Your task to perform on an android device: turn on sleep mode Image 0: 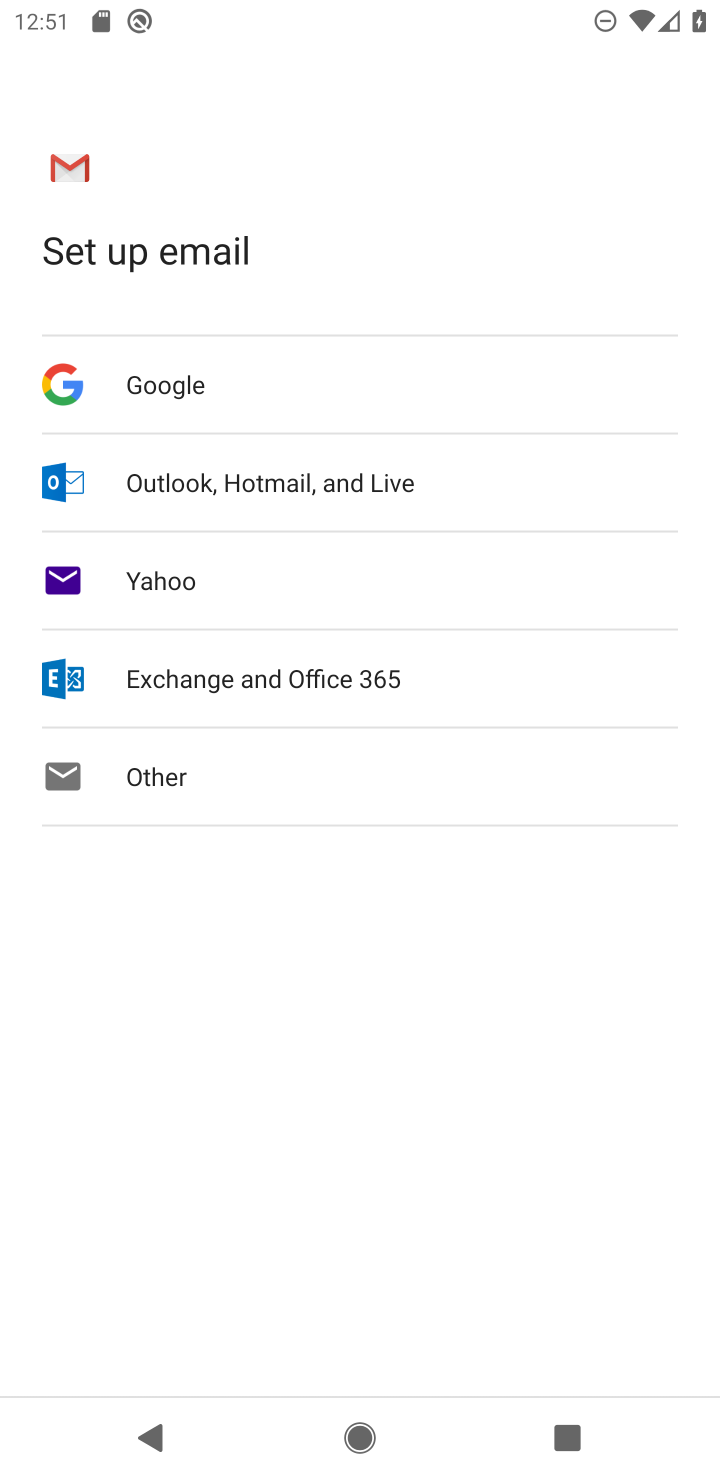
Step 0: press home button
Your task to perform on an android device: turn on sleep mode Image 1: 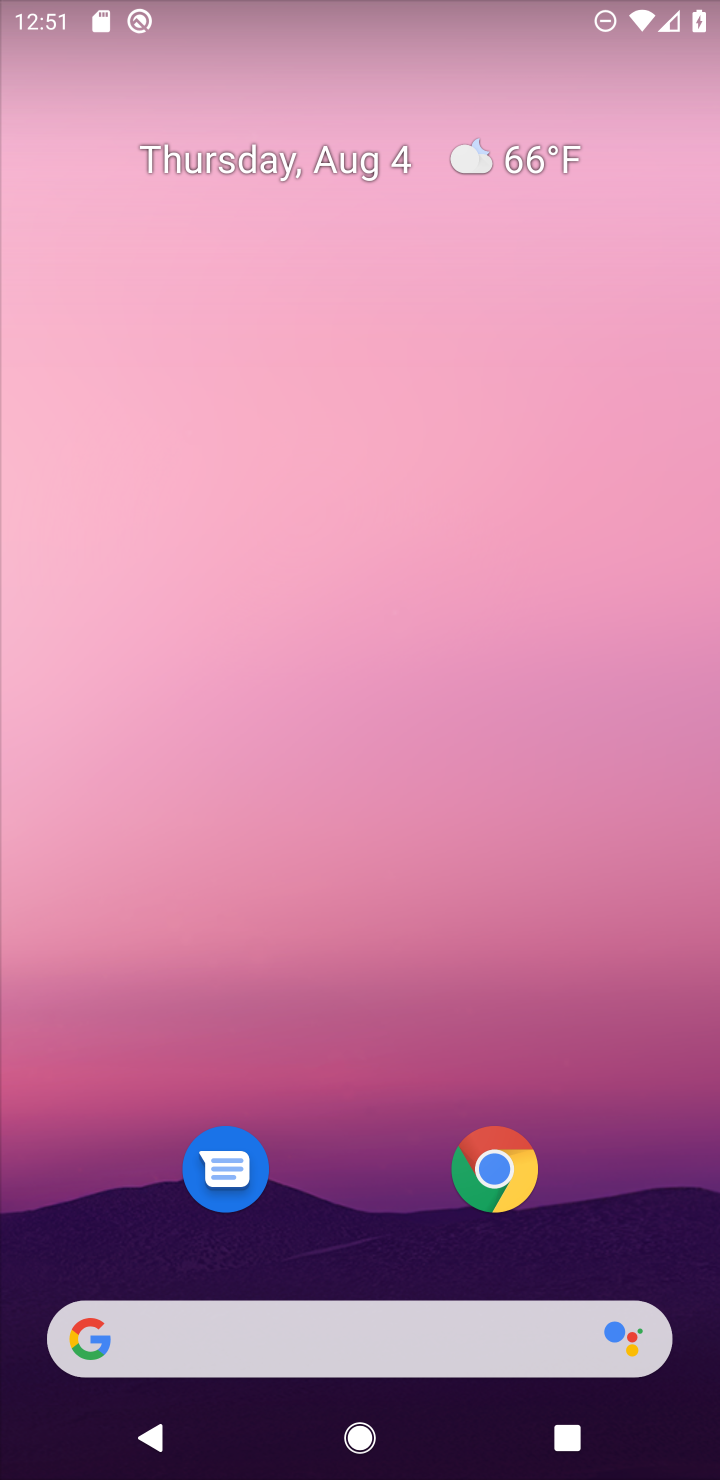
Step 1: drag from (391, 1104) to (377, 58)
Your task to perform on an android device: turn on sleep mode Image 2: 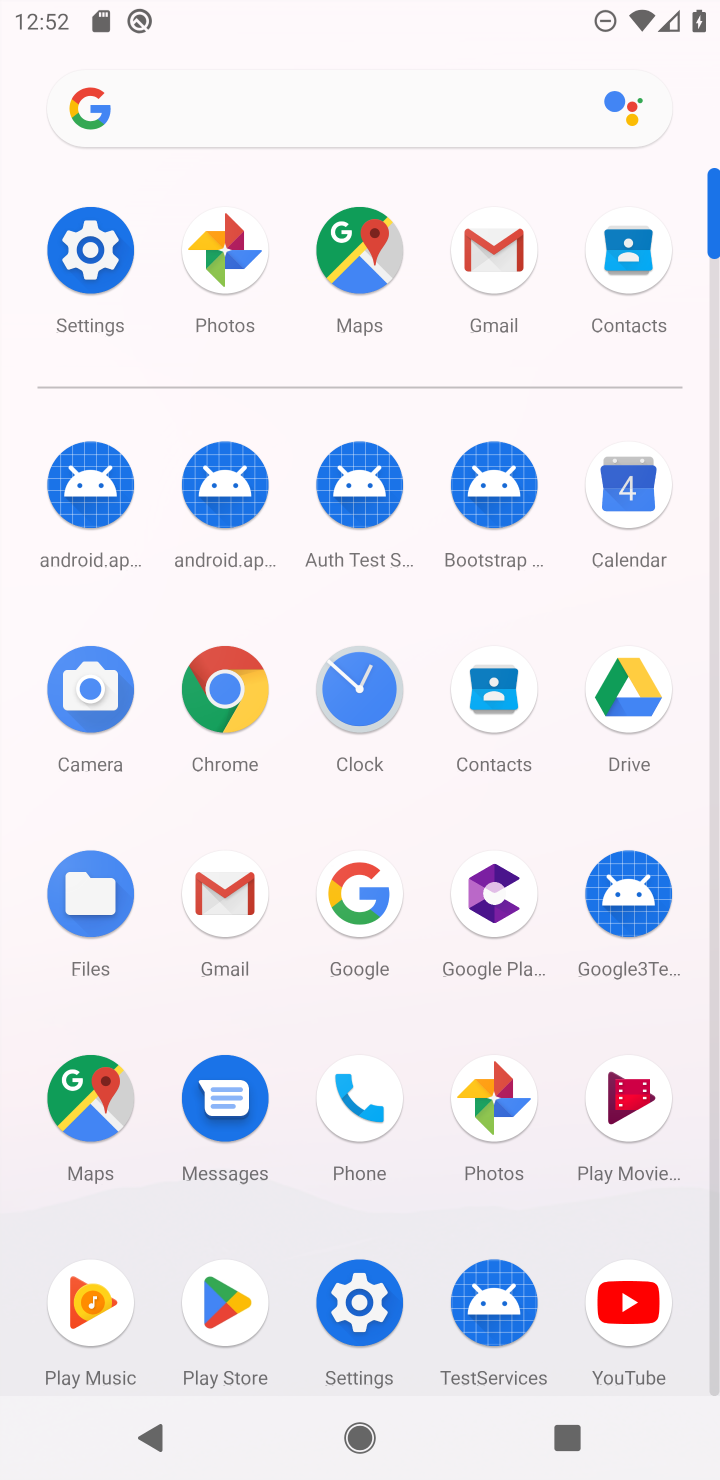
Step 2: click (100, 258)
Your task to perform on an android device: turn on sleep mode Image 3: 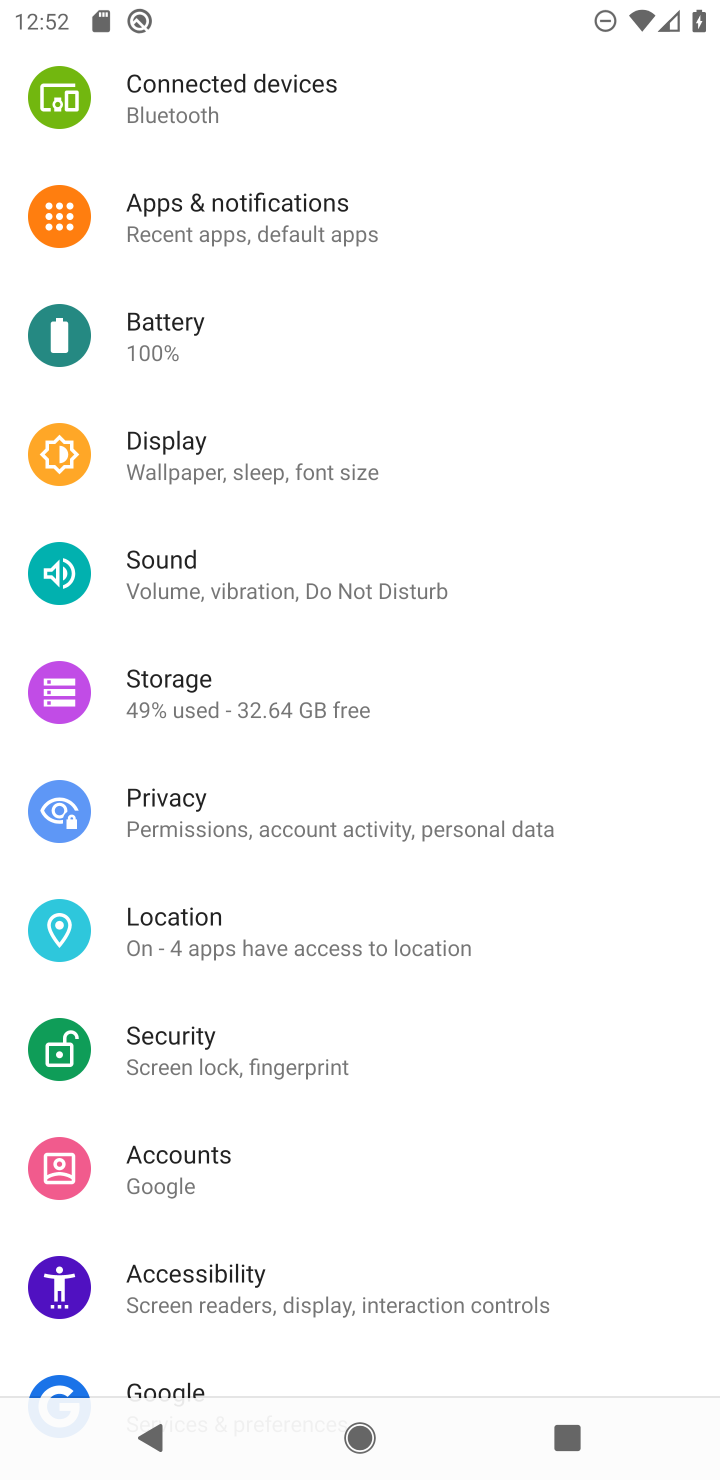
Step 3: click (206, 467)
Your task to perform on an android device: turn on sleep mode Image 4: 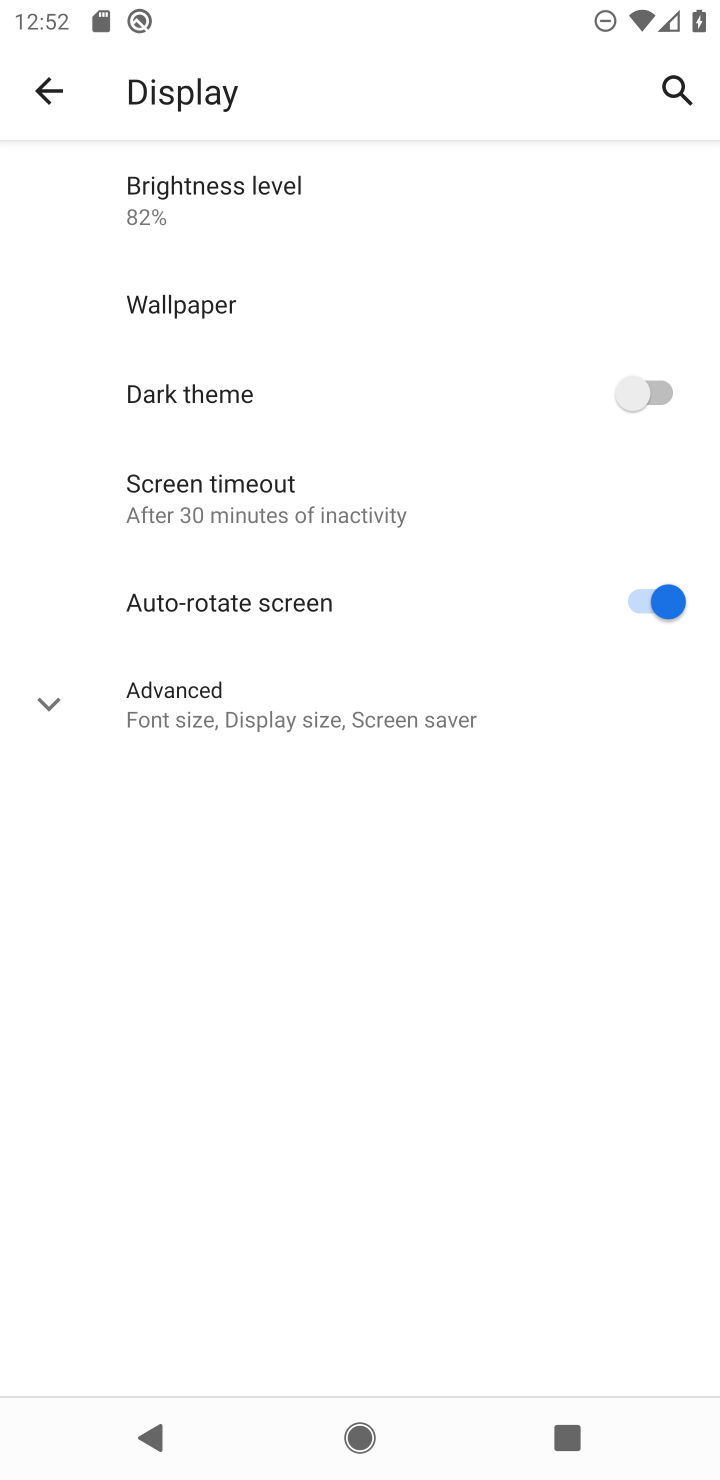
Step 4: click (42, 712)
Your task to perform on an android device: turn on sleep mode Image 5: 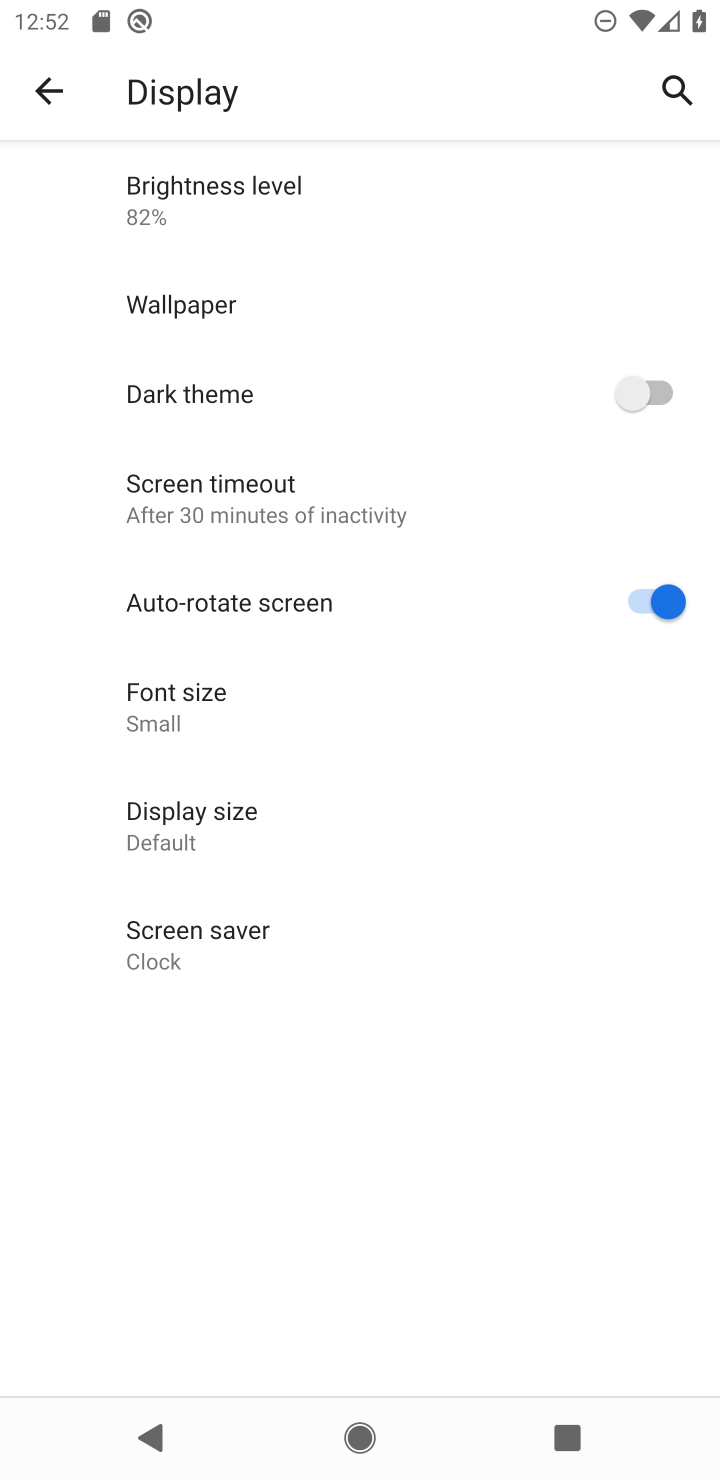
Step 5: task complete